Your task to perform on an android device: add a label to a message in the gmail app Image 0: 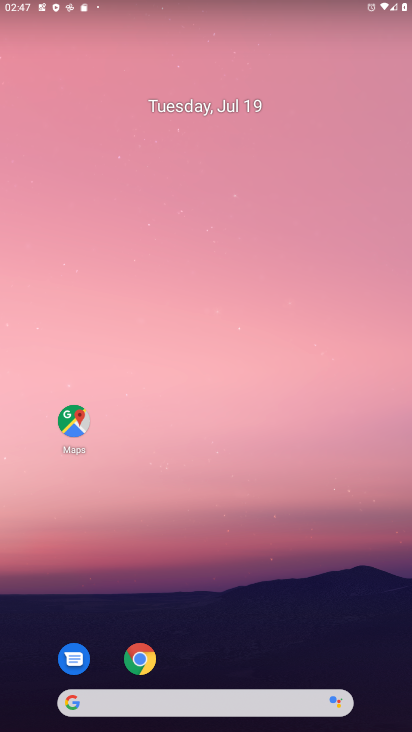
Step 0: press home button
Your task to perform on an android device: add a label to a message in the gmail app Image 1: 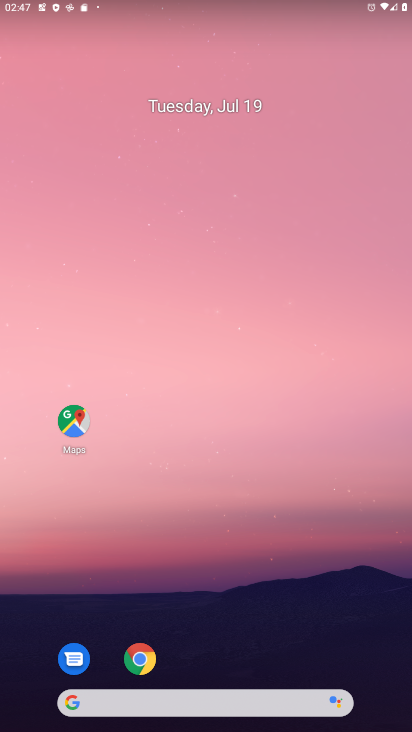
Step 1: drag from (373, 662) to (217, 86)
Your task to perform on an android device: add a label to a message in the gmail app Image 2: 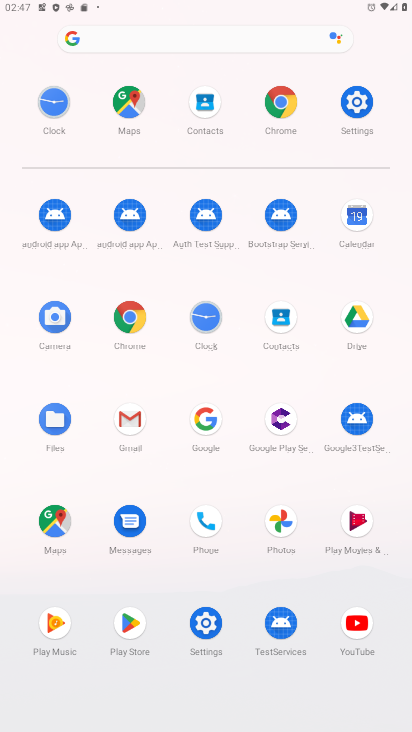
Step 2: click (116, 437)
Your task to perform on an android device: add a label to a message in the gmail app Image 3: 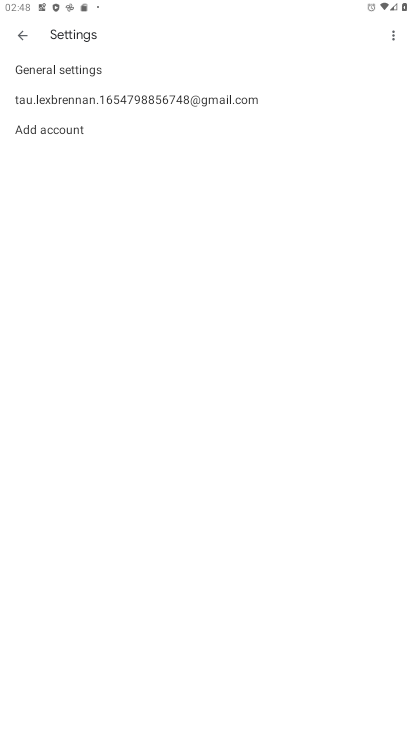
Step 3: click (31, 24)
Your task to perform on an android device: add a label to a message in the gmail app Image 4: 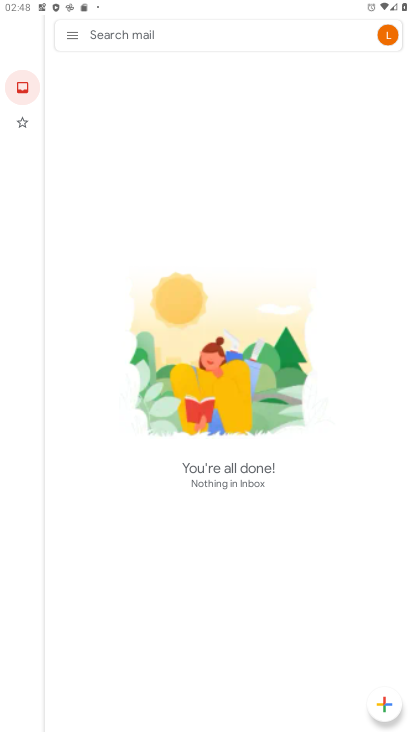
Step 4: task complete